Your task to perform on an android device: Do I have any events today? Image 0: 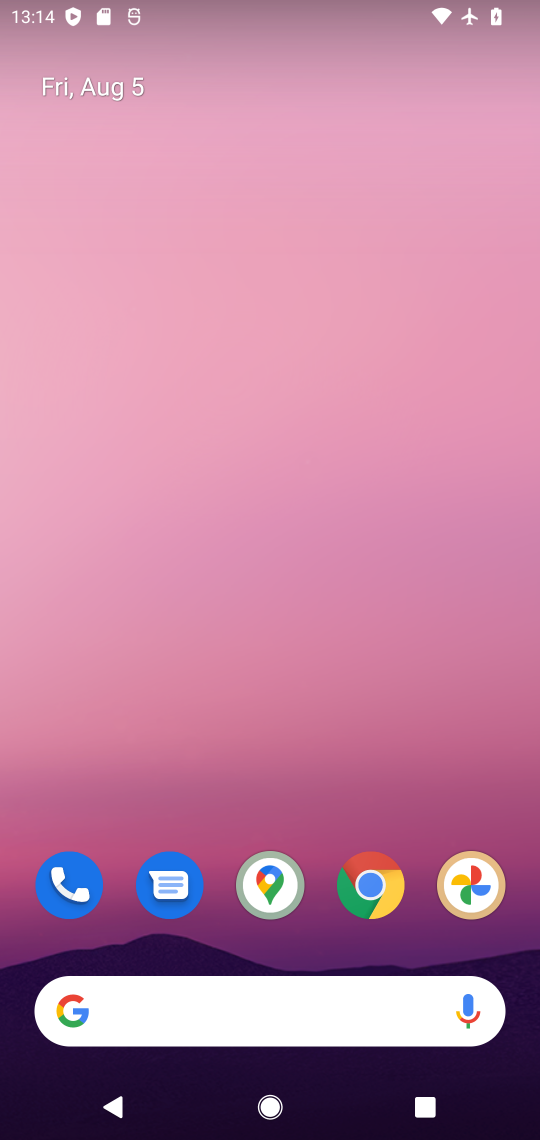
Step 0: drag from (222, 889) to (222, 12)
Your task to perform on an android device: Do I have any events today? Image 1: 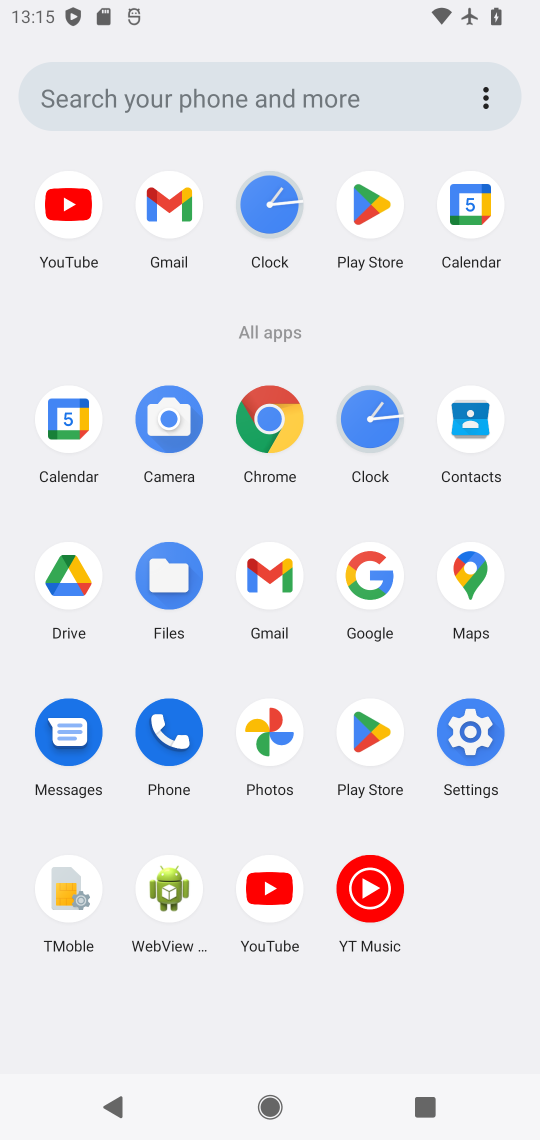
Step 1: click (63, 462)
Your task to perform on an android device: Do I have any events today? Image 2: 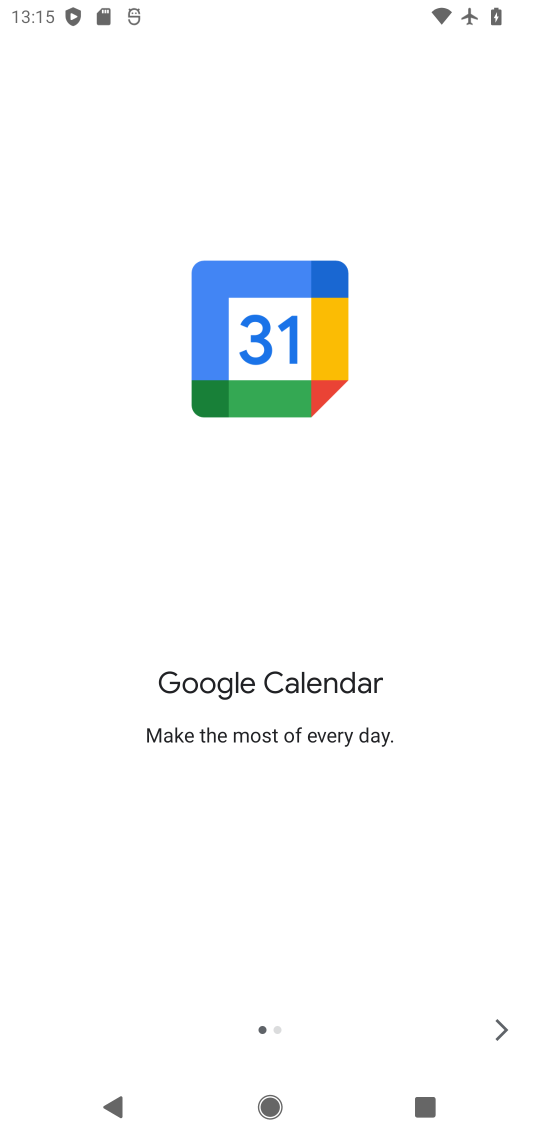
Step 2: click (505, 1034)
Your task to perform on an android device: Do I have any events today? Image 3: 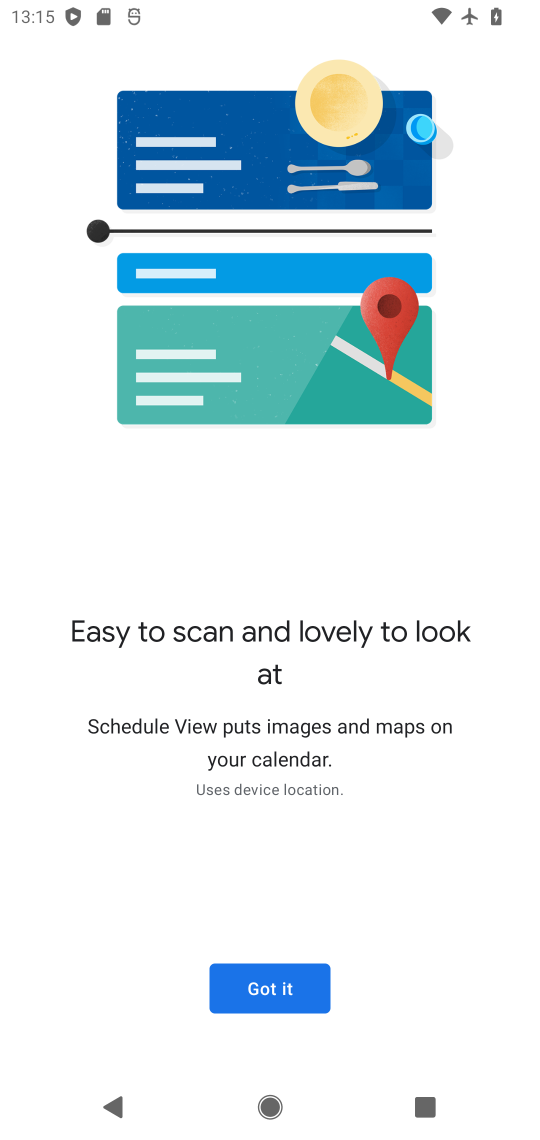
Step 3: click (505, 1034)
Your task to perform on an android device: Do I have any events today? Image 4: 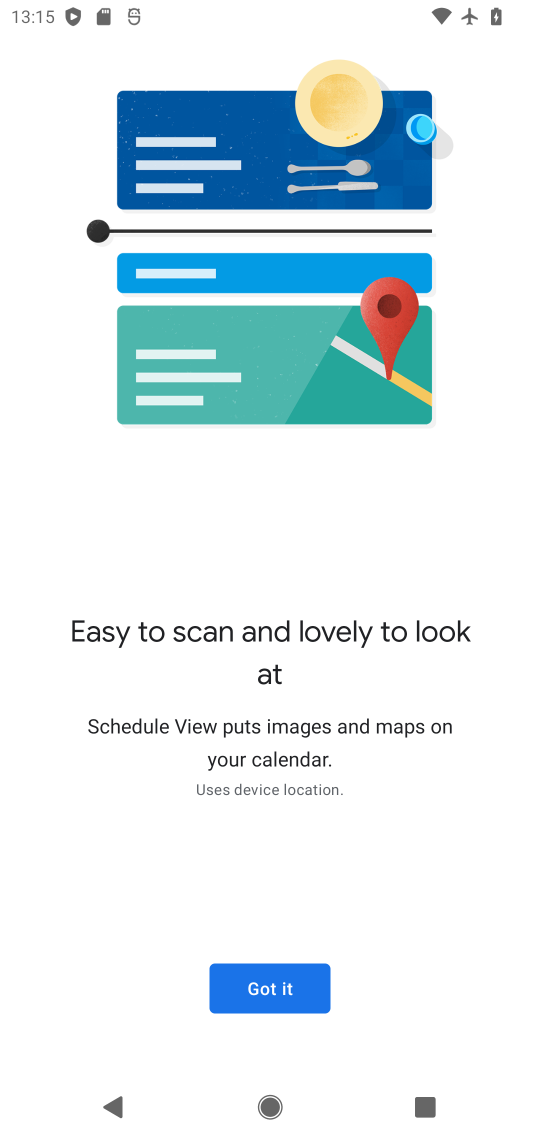
Step 4: click (249, 992)
Your task to perform on an android device: Do I have any events today? Image 5: 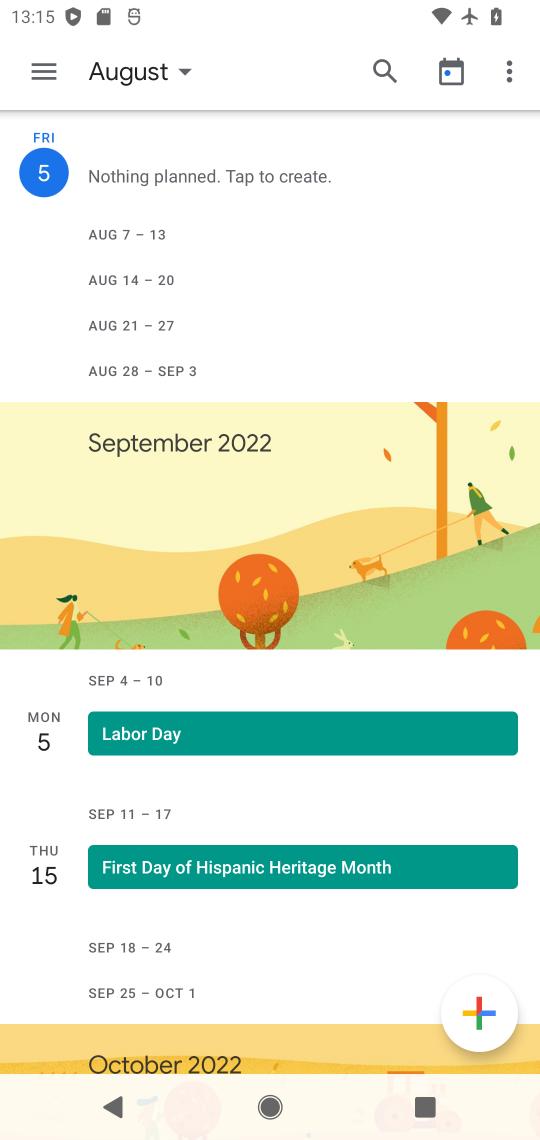
Step 5: task complete